Your task to perform on an android device: check the backup settings in the google photos Image 0: 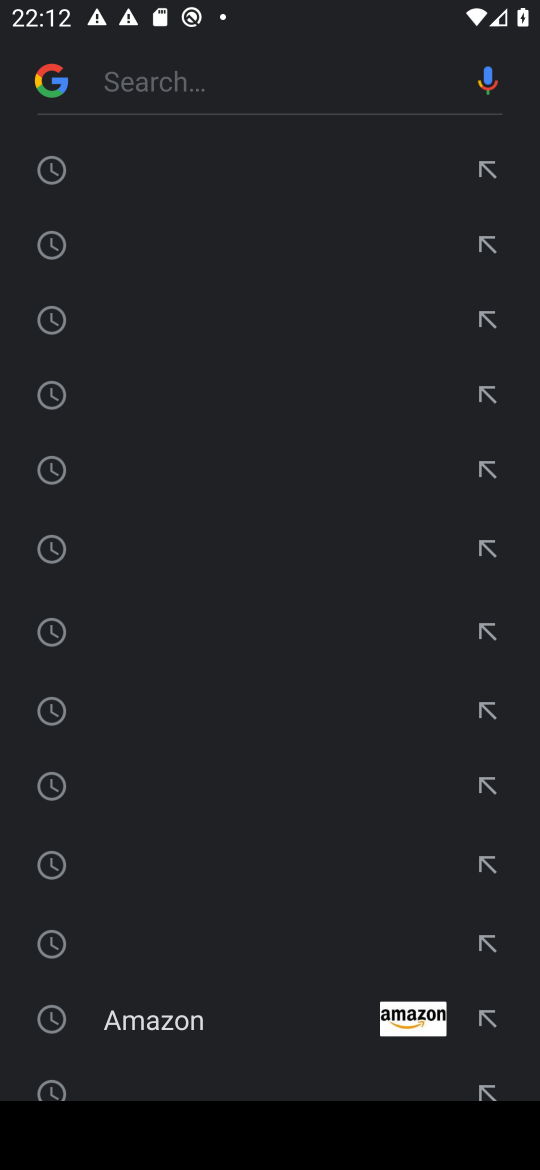
Step 0: press home button
Your task to perform on an android device: check the backup settings in the google photos Image 1: 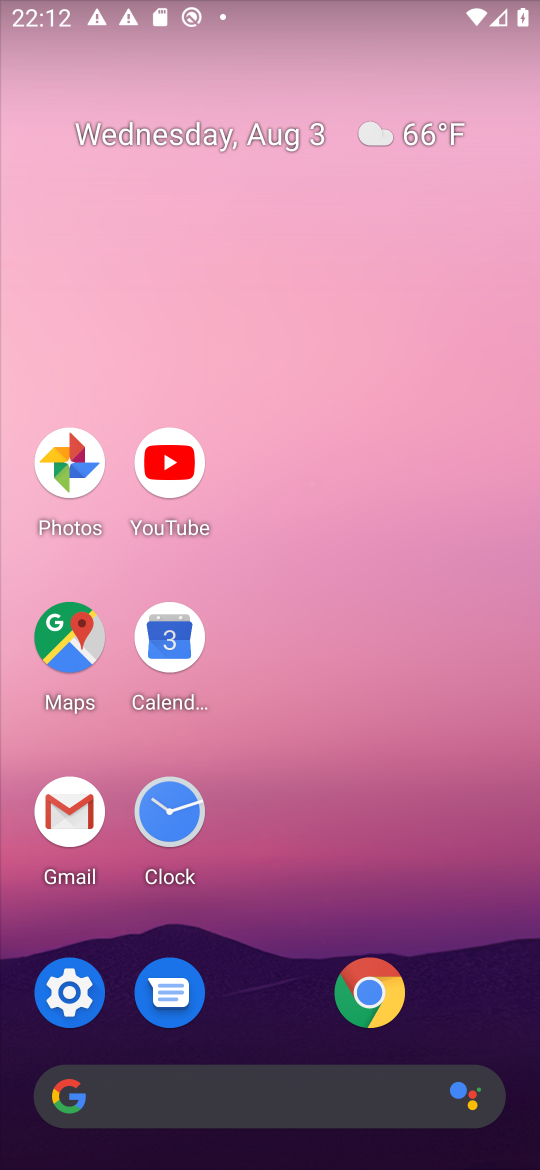
Step 1: click (68, 455)
Your task to perform on an android device: check the backup settings in the google photos Image 2: 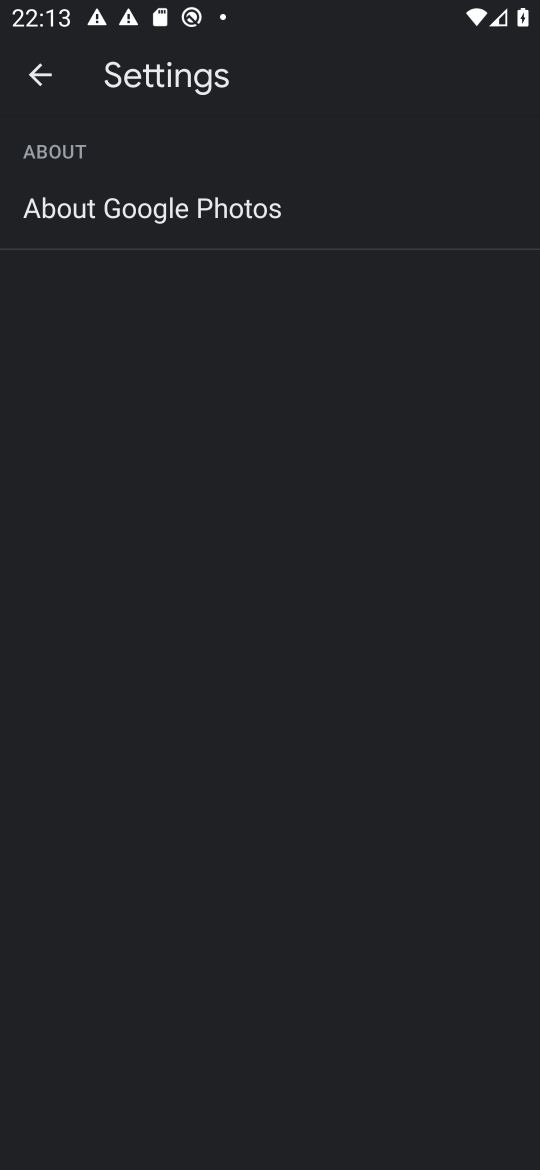
Step 2: click (46, 75)
Your task to perform on an android device: check the backup settings in the google photos Image 3: 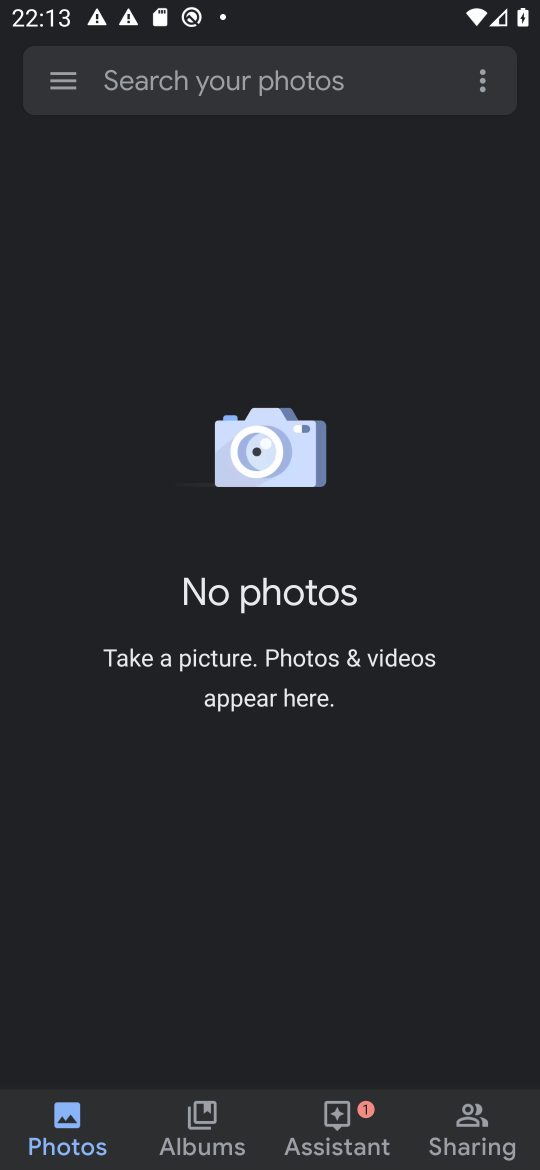
Step 3: click (66, 78)
Your task to perform on an android device: check the backup settings in the google photos Image 4: 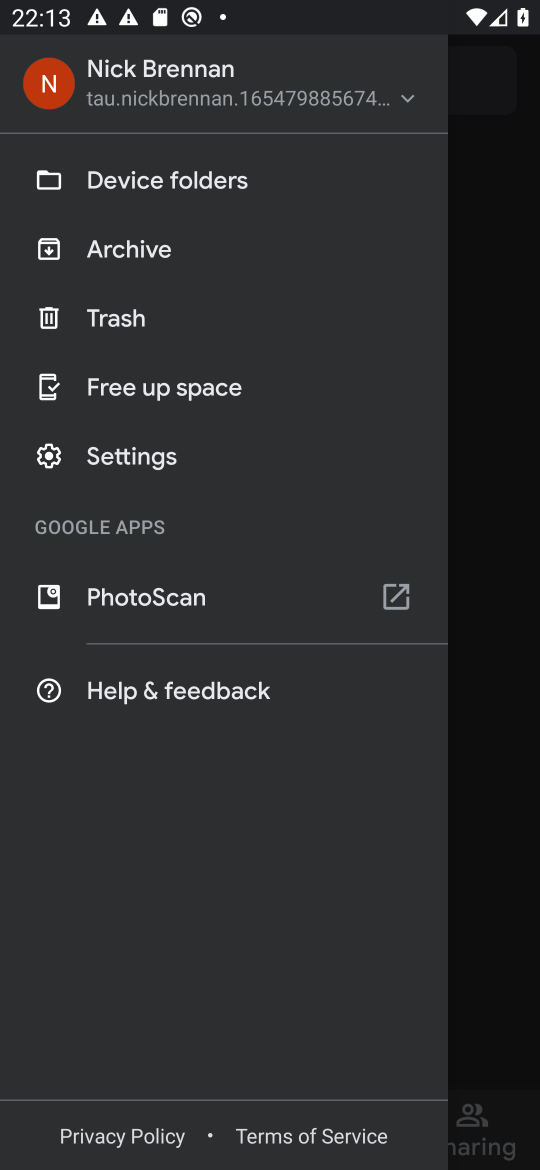
Step 4: click (127, 455)
Your task to perform on an android device: check the backup settings in the google photos Image 5: 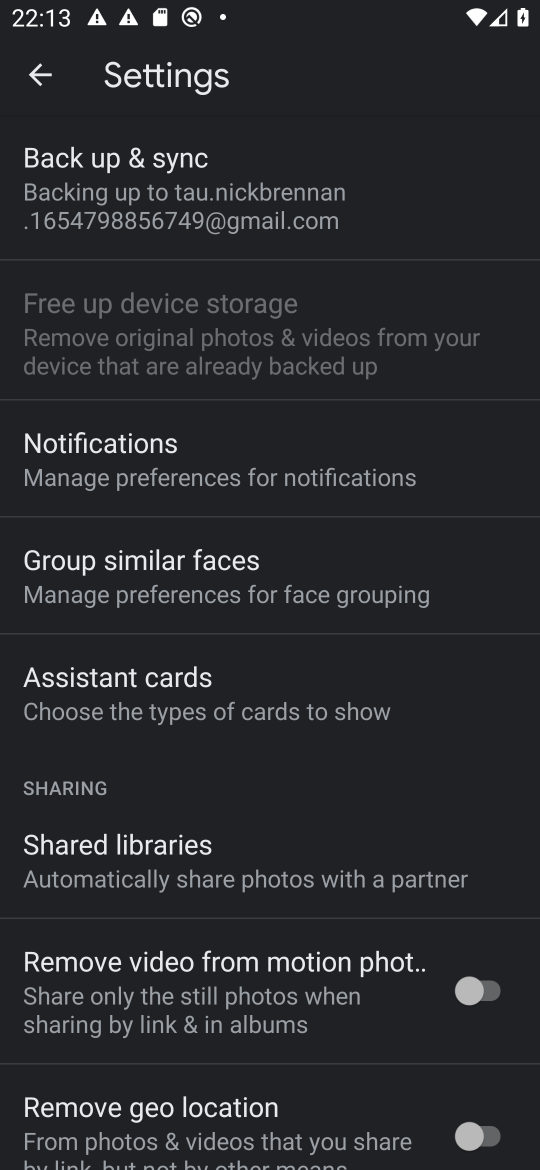
Step 5: click (108, 149)
Your task to perform on an android device: check the backup settings in the google photos Image 6: 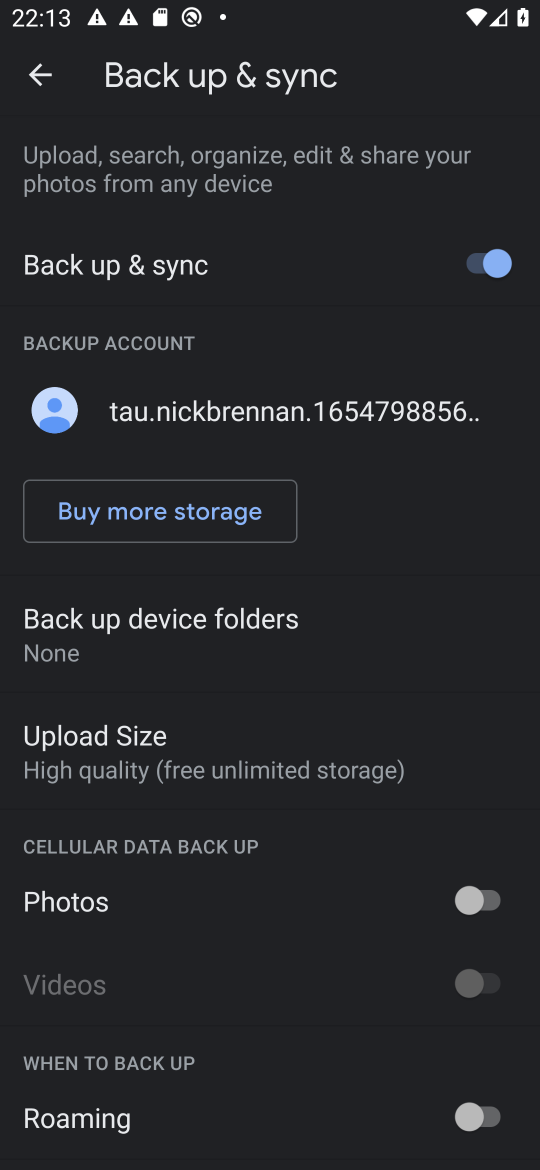
Step 6: task complete